Your task to perform on an android device: toggle translation in the chrome app Image 0: 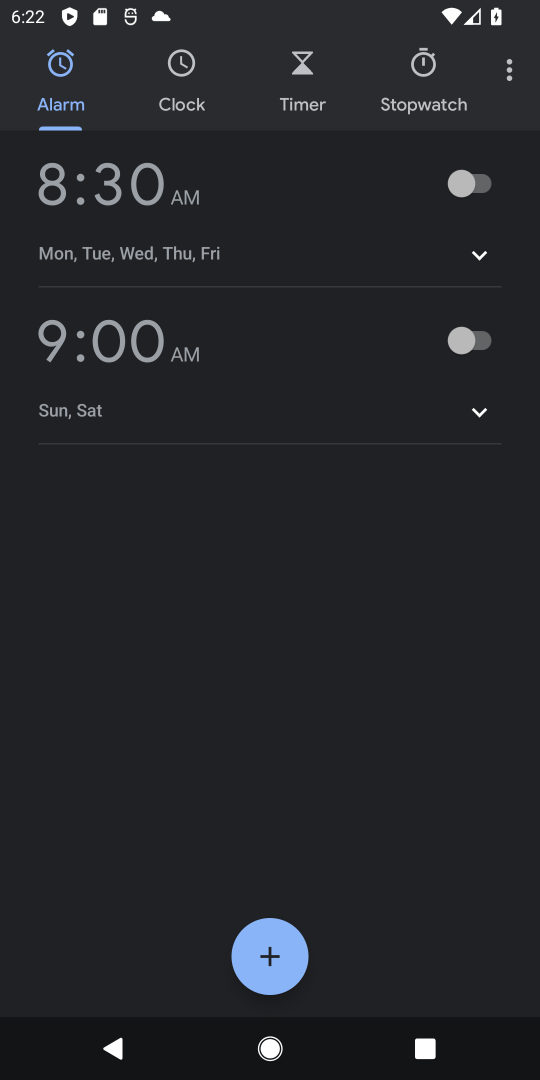
Step 0: press back button
Your task to perform on an android device: toggle translation in the chrome app Image 1: 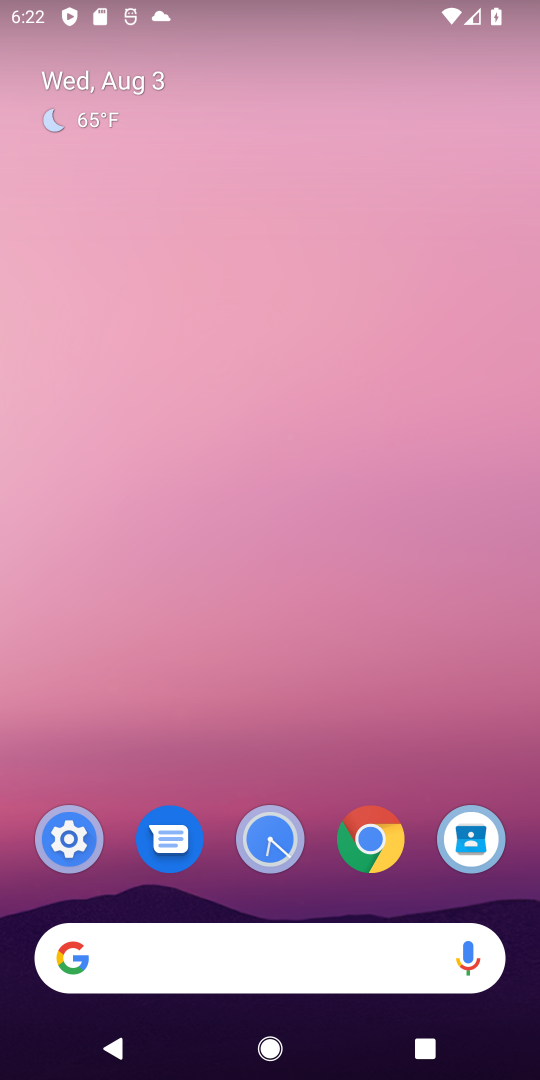
Step 1: click (386, 841)
Your task to perform on an android device: toggle translation in the chrome app Image 2: 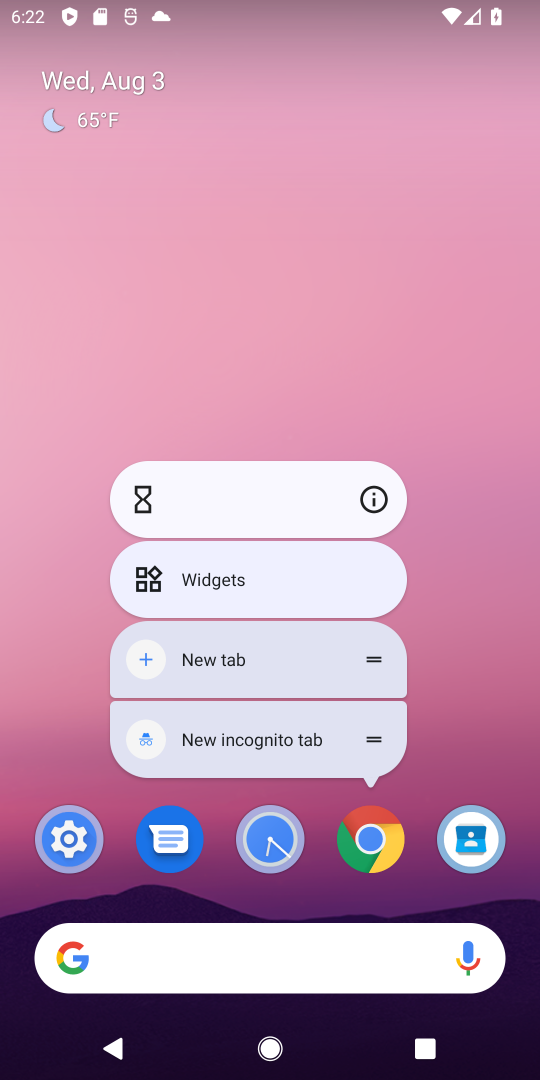
Step 2: click (372, 849)
Your task to perform on an android device: toggle translation in the chrome app Image 3: 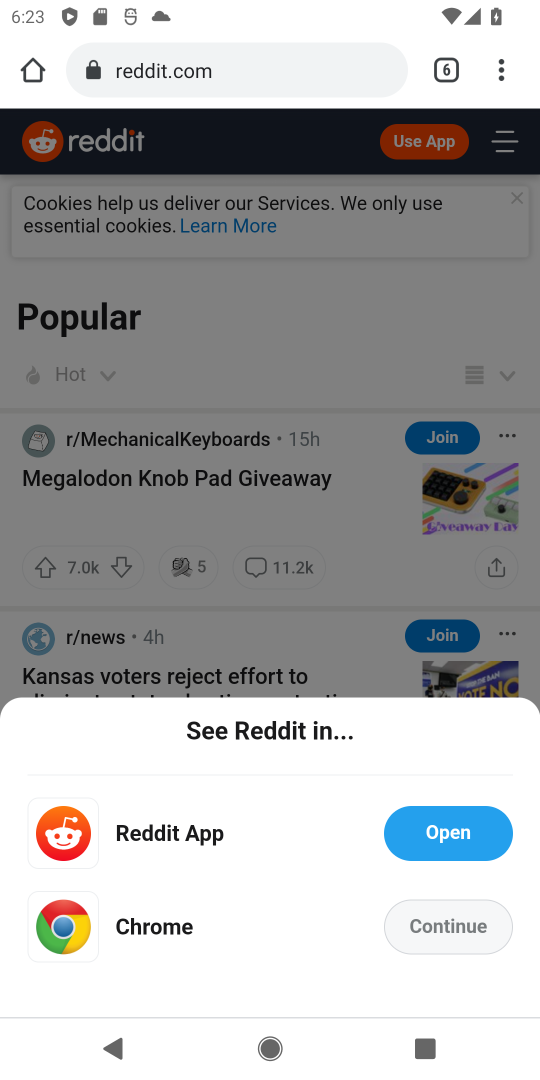
Step 3: drag from (495, 63) to (298, 893)
Your task to perform on an android device: toggle translation in the chrome app Image 4: 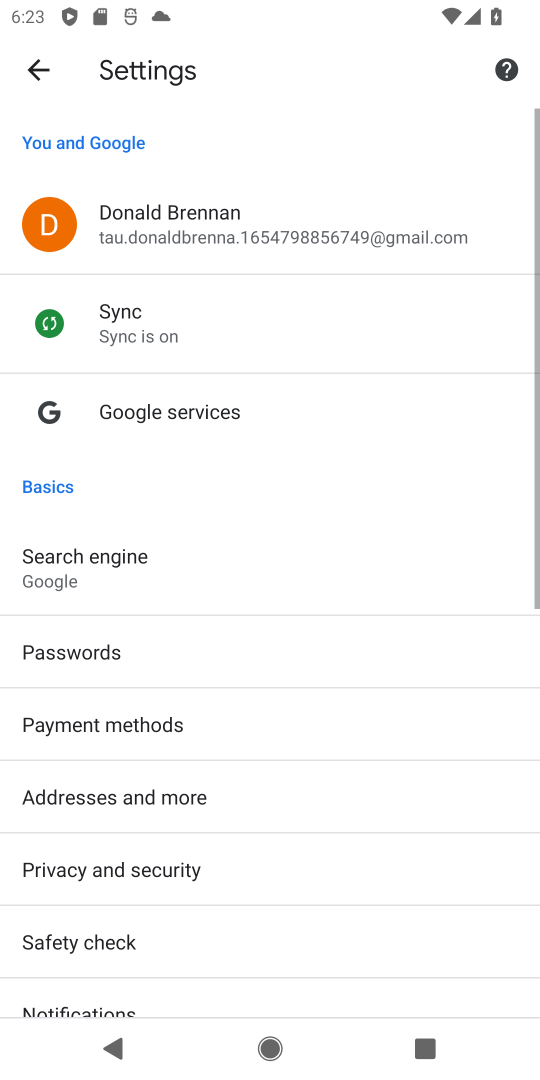
Step 4: drag from (224, 897) to (433, 25)
Your task to perform on an android device: toggle translation in the chrome app Image 5: 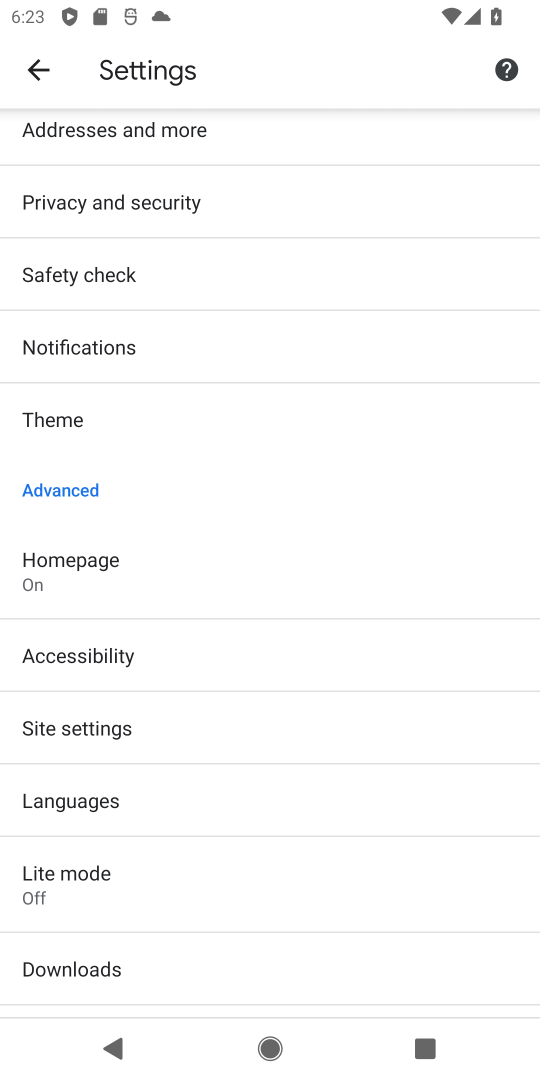
Step 5: click (103, 819)
Your task to perform on an android device: toggle translation in the chrome app Image 6: 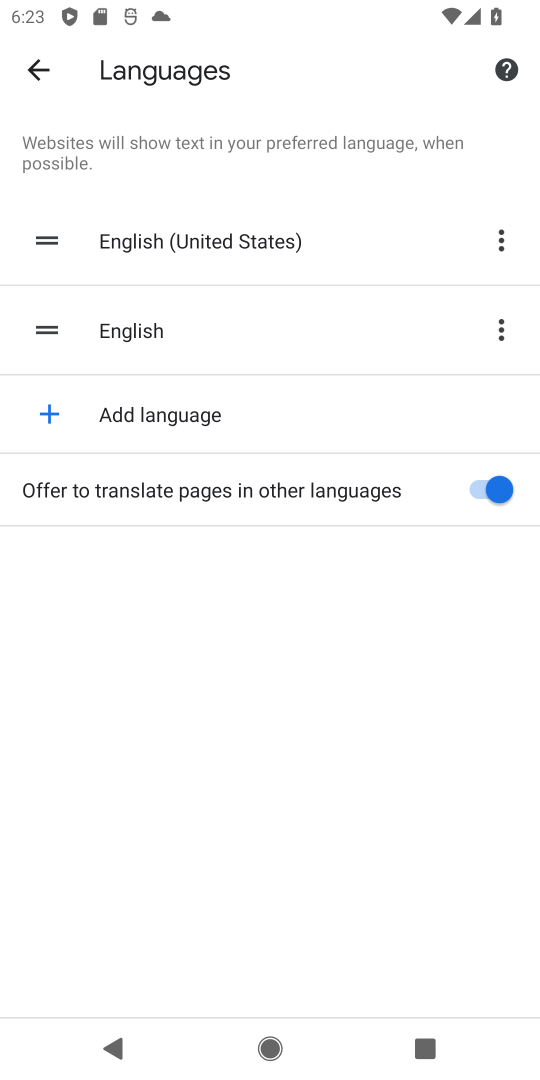
Step 6: click (491, 492)
Your task to perform on an android device: toggle translation in the chrome app Image 7: 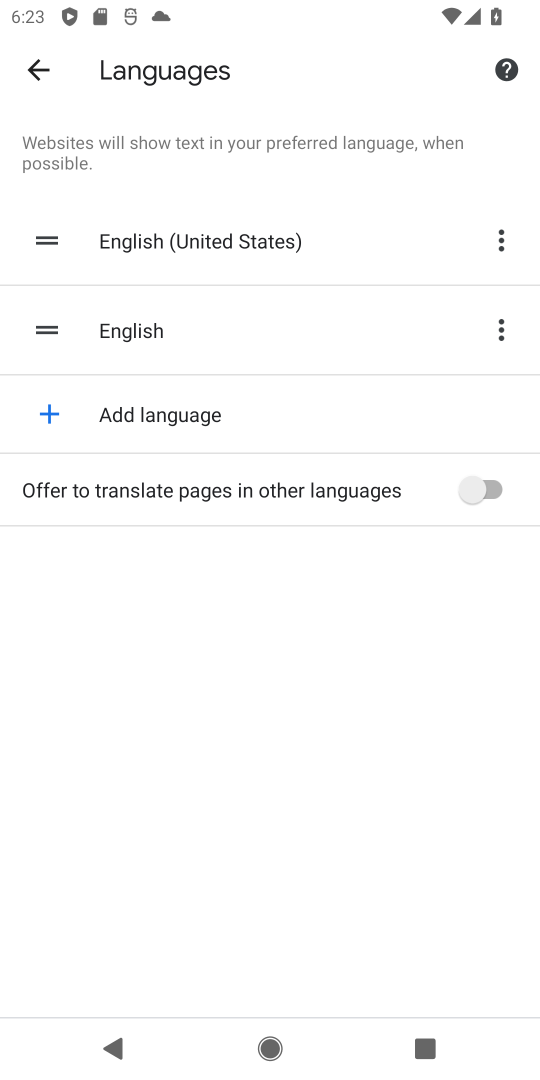
Step 7: task complete